Your task to perform on an android device: see tabs open on other devices in the chrome app Image 0: 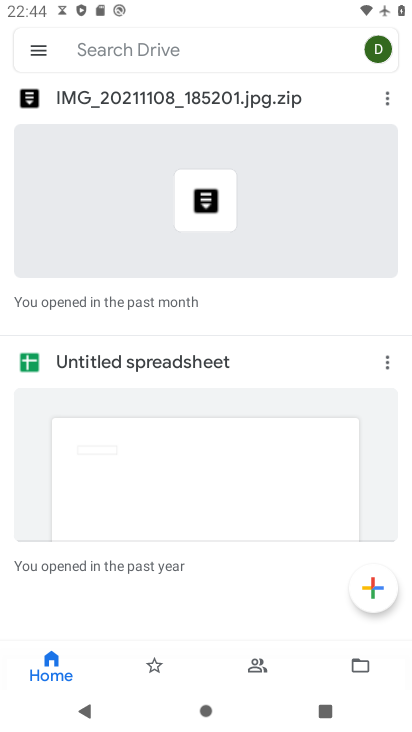
Step 0: press back button
Your task to perform on an android device: see tabs open on other devices in the chrome app Image 1: 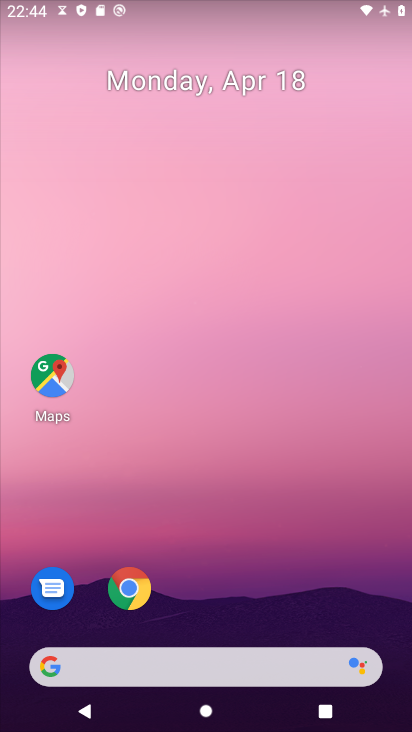
Step 1: drag from (247, 523) to (65, 8)
Your task to perform on an android device: see tabs open on other devices in the chrome app Image 2: 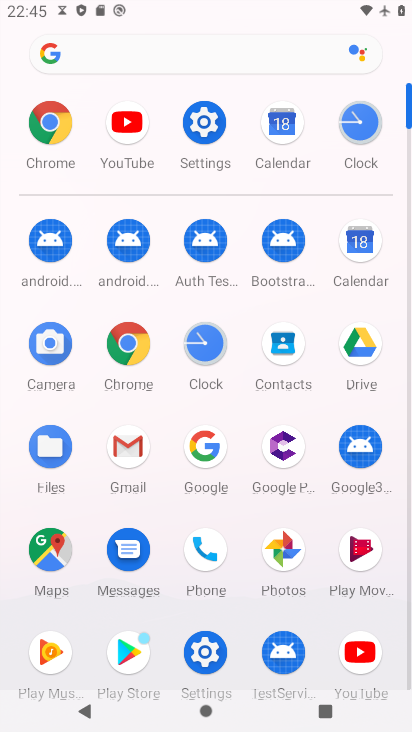
Step 2: click (51, 119)
Your task to perform on an android device: see tabs open on other devices in the chrome app Image 3: 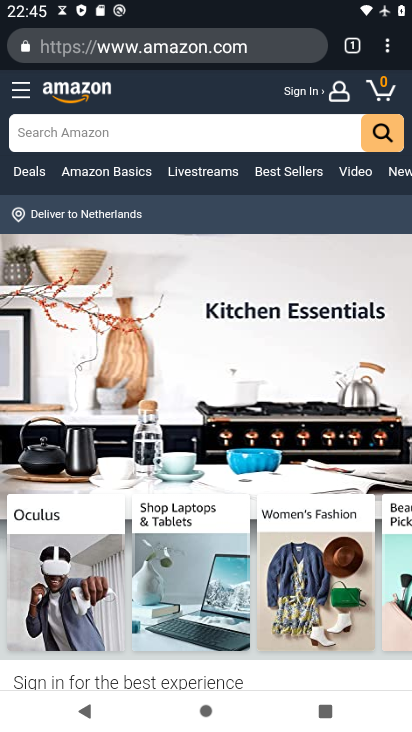
Step 3: task complete